Your task to perform on an android device: Open Reddit.com Image 0: 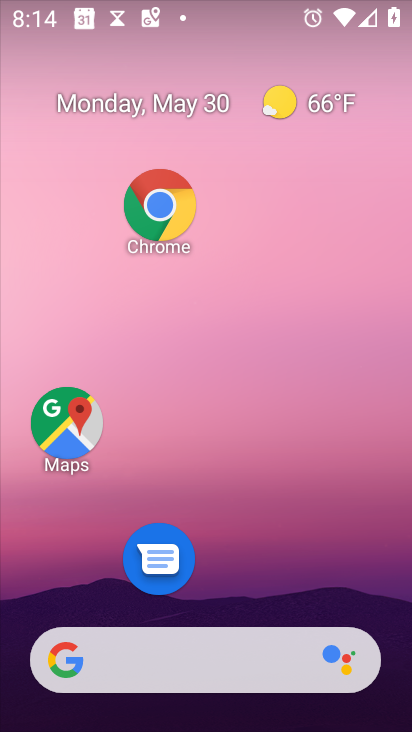
Step 0: drag from (300, 670) to (201, 120)
Your task to perform on an android device: Open Reddit.com Image 1: 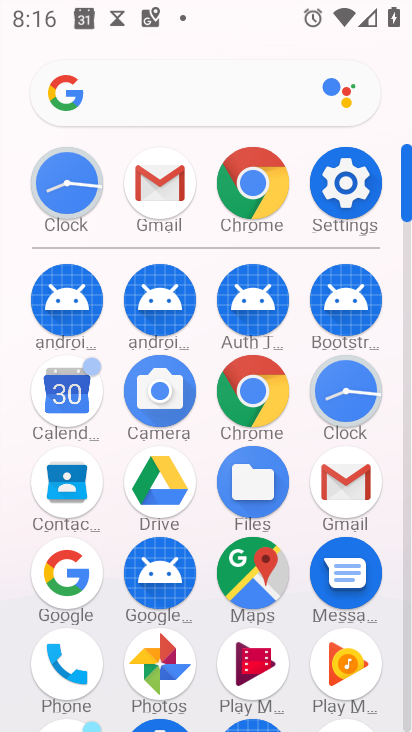
Step 1: click (270, 182)
Your task to perform on an android device: Open Reddit.com Image 2: 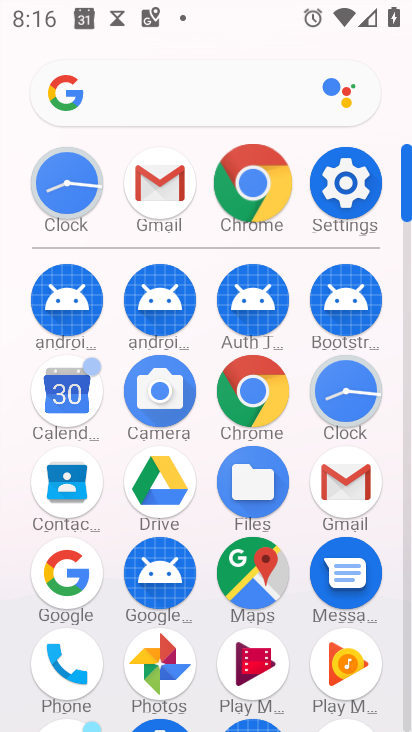
Step 2: click (270, 182)
Your task to perform on an android device: Open Reddit.com Image 3: 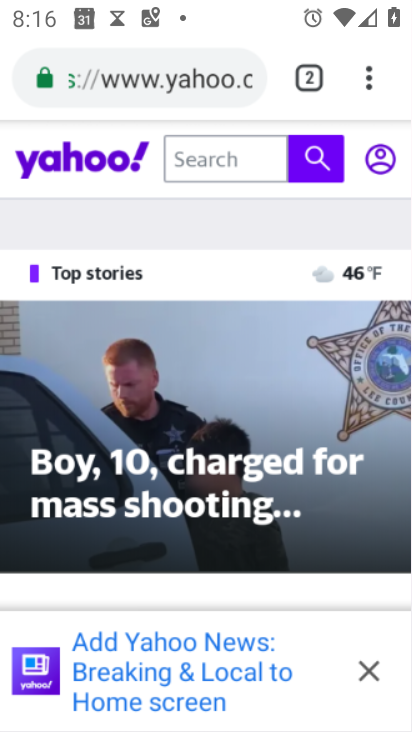
Step 3: click (260, 183)
Your task to perform on an android device: Open Reddit.com Image 4: 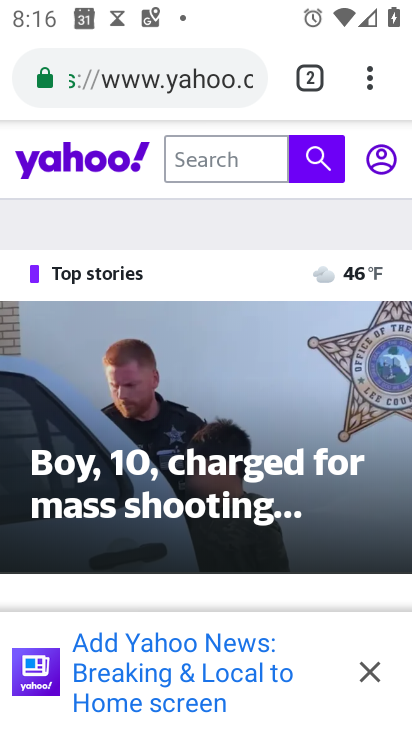
Step 4: click (369, 72)
Your task to perform on an android device: Open Reddit.com Image 5: 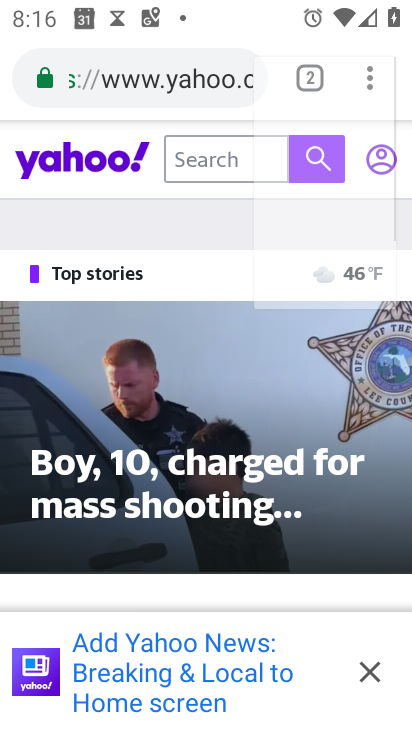
Step 5: click (369, 74)
Your task to perform on an android device: Open Reddit.com Image 6: 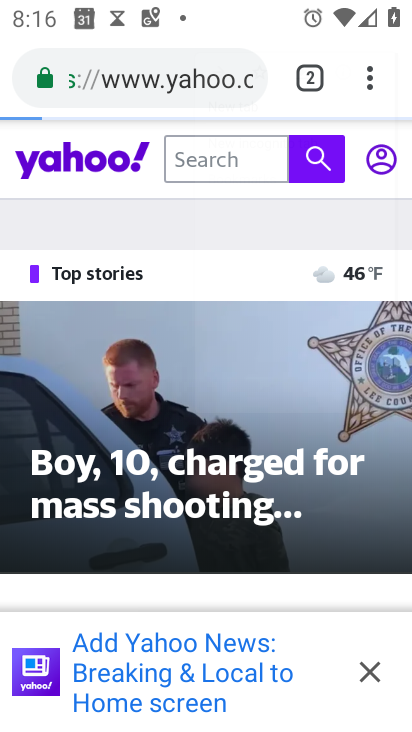
Step 6: click (369, 74)
Your task to perform on an android device: Open Reddit.com Image 7: 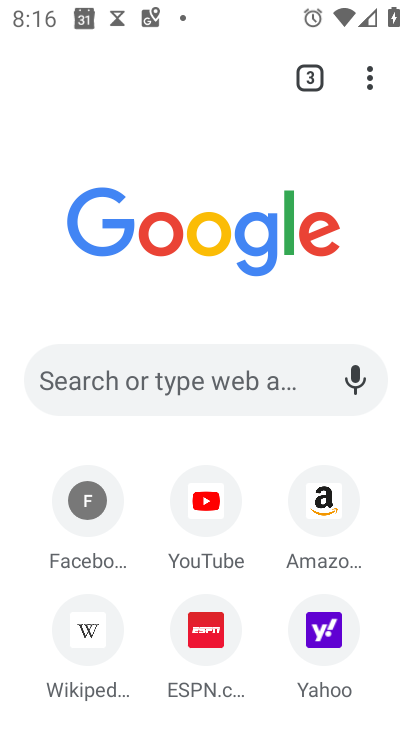
Step 7: click (83, 371)
Your task to perform on an android device: Open Reddit.com Image 8: 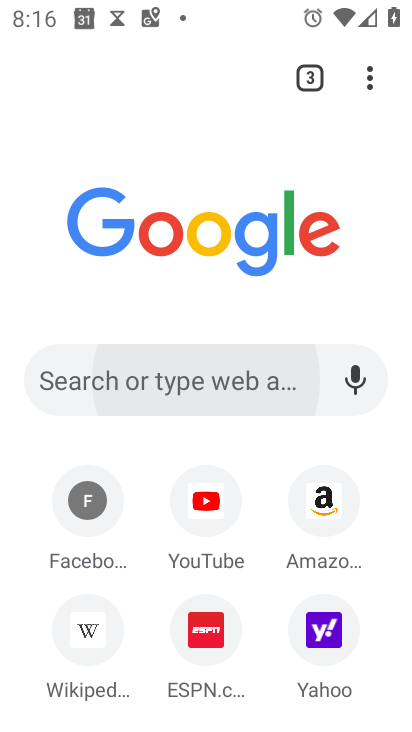
Step 8: click (90, 370)
Your task to perform on an android device: Open Reddit.com Image 9: 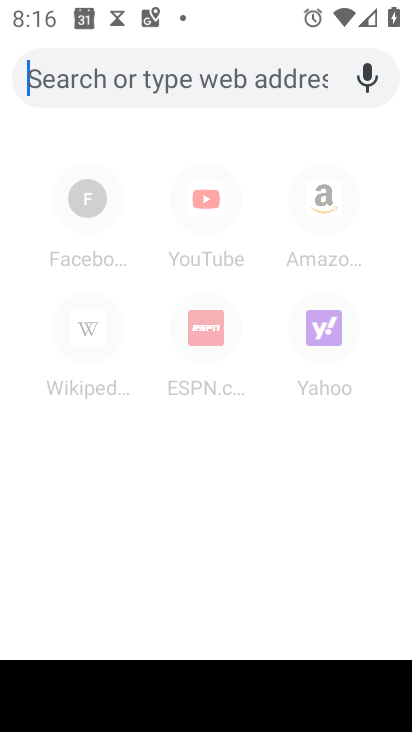
Step 9: type "reddit.com"
Your task to perform on an android device: Open Reddit.com Image 10: 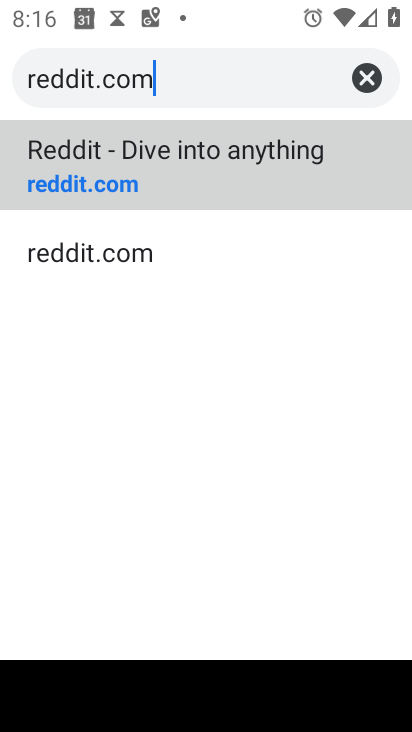
Step 10: click (46, 189)
Your task to perform on an android device: Open Reddit.com Image 11: 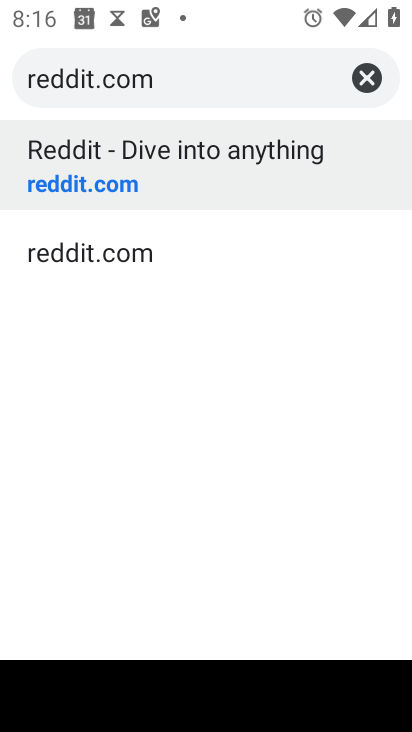
Step 11: click (52, 189)
Your task to perform on an android device: Open Reddit.com Image 12: 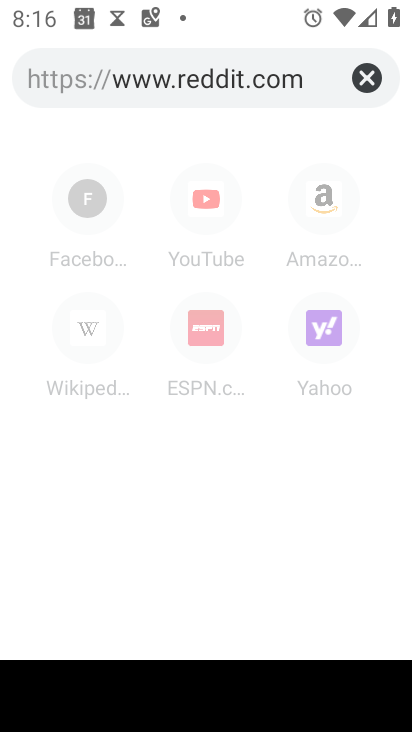
Step 12: click (56, 188)
Your task to perform on an android device: Open Reddit.com Image 13: 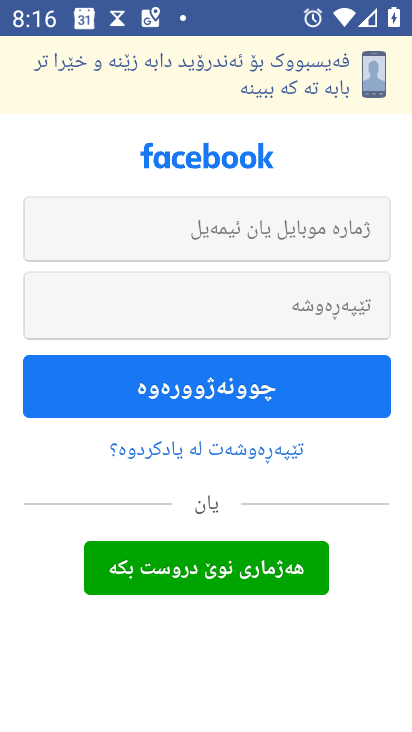
Step 13: task complete